Your task to perform on an android device: turn off data saver in the chrome app Image 0: 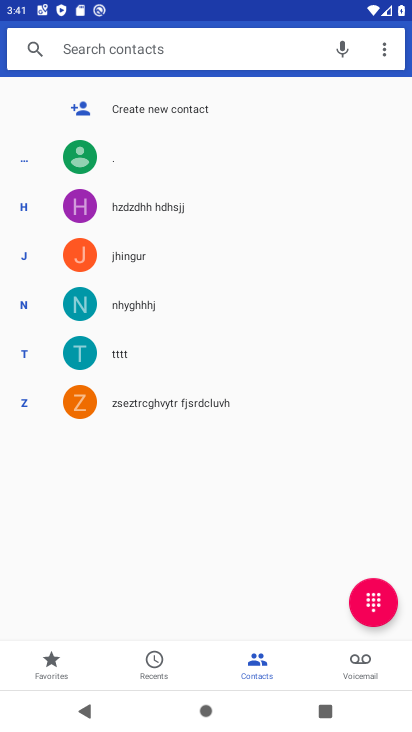
Step 0: press home button
Your task to perform on an android device: turn off data saver in the chrome app Image 1: 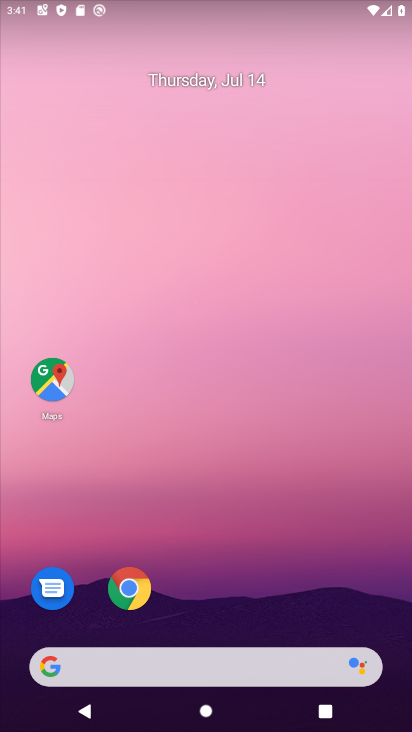
Step 1: drag from (296, 619) to (276, 95)
Your task to perform on an android device: turn off data saver in the chrome app Image 2: 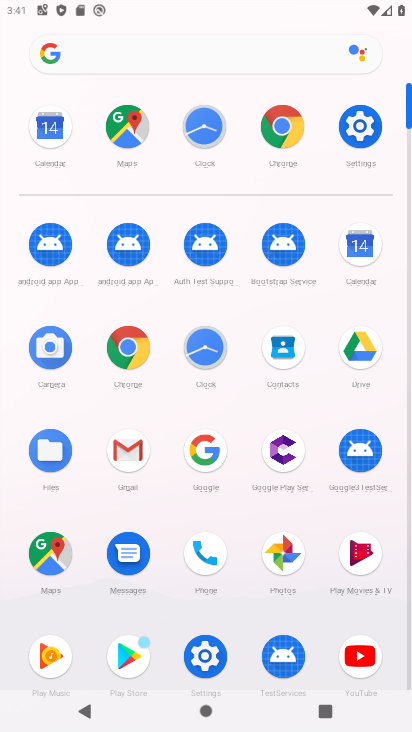
Step 2: click (273, 128)
Your task to perform on an android device: turn off data saver in the chrome app Image 3: 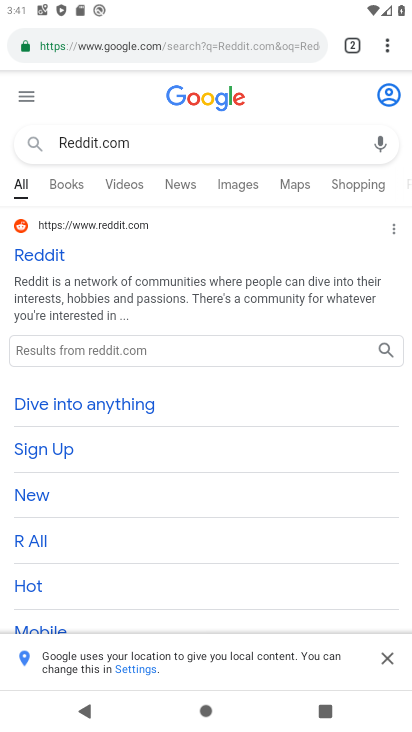
Step 3: drag from (385, 51) to (233, 516)
Your task to perform on an android device: turn off data saver in the chrome app Image 4: 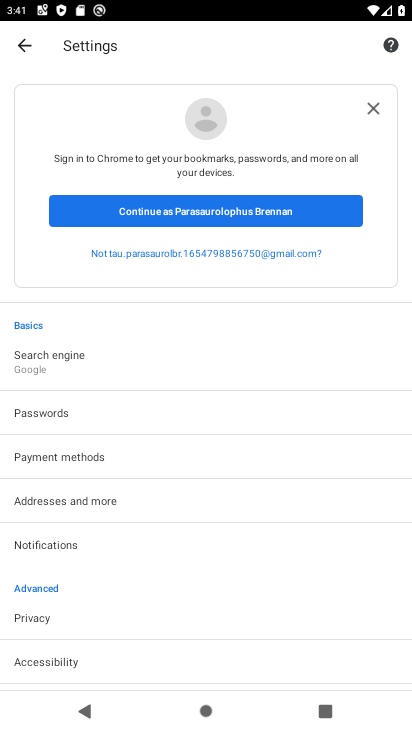
Step 4: drag from (139, 572) to (101, 250)
Your task to perform on an android device: turn off data saver in the chrome app Image 5: 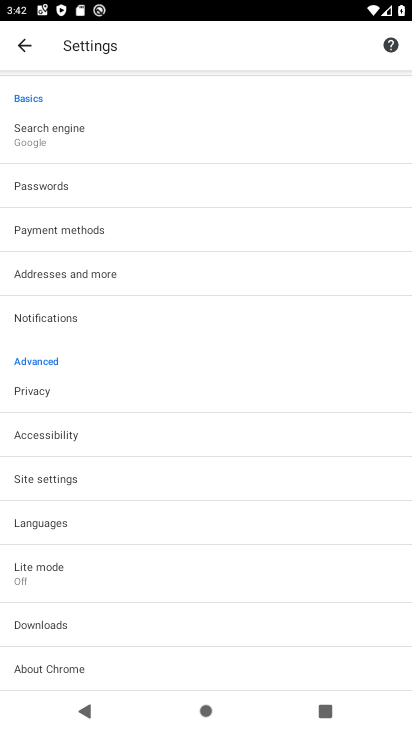
Step 5: click (67, 575)
Your task to perform on an android device: turn off data saver in the chrome app Image 6: 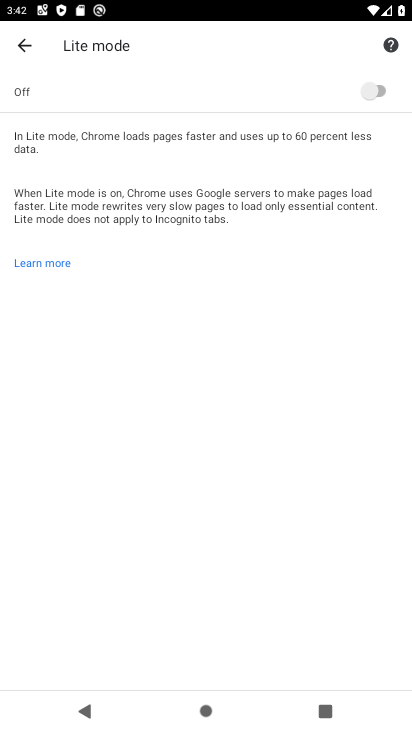
Step 6: task complete